Your task to perform on an android device: open wifi settings Image 0: 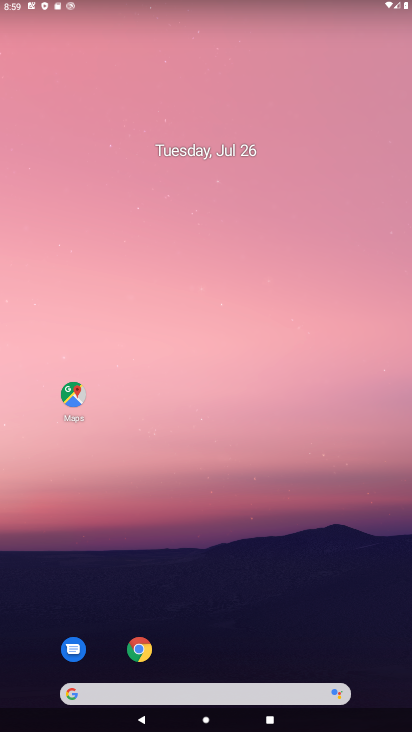
Step 0: drag from (217, 609) to (293, 373)
Your task to perform on an android device: open wifi settings Image 1: 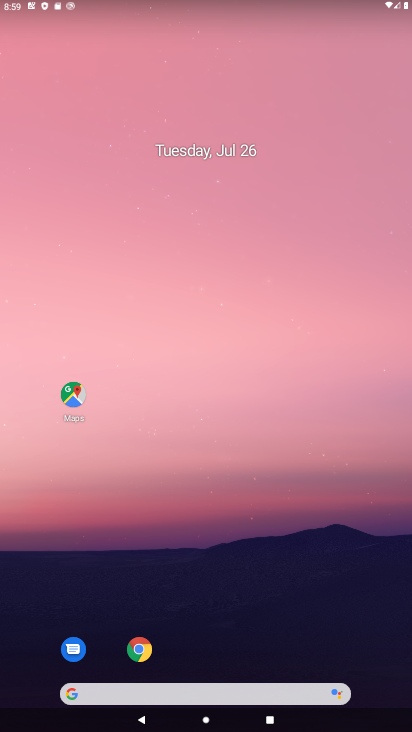
Step 1: drag from (251, 523) to (323, 29)
Your task to perform on an android device: open wifi settings Image 2: 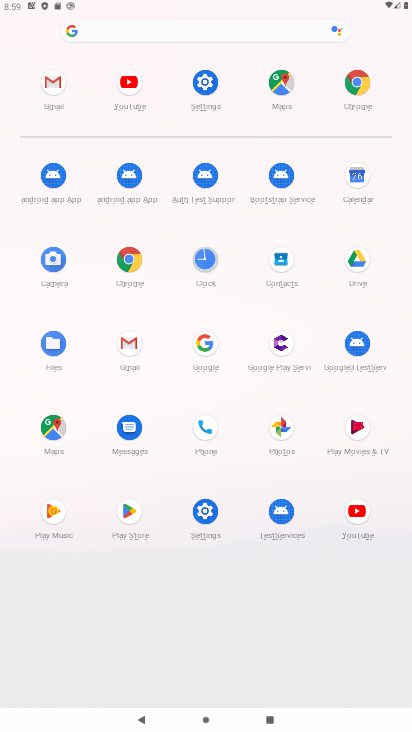
Step 2: click (203, 81)
Your task to perform on an android device: open wifi settings Image 3: 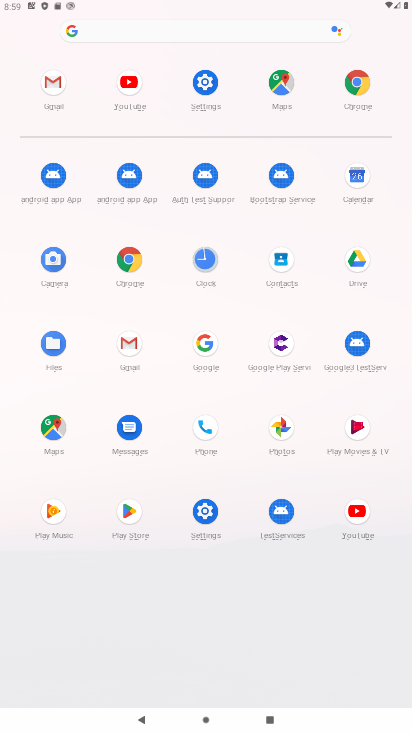
Step 3: click (203, 81)
Your task to perform on an android device: open wifi settings Image 4: 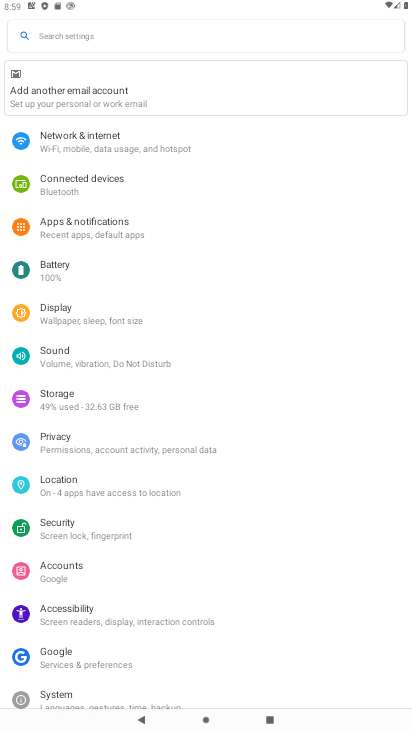
Step 4: click (88, 140)
Your task to perform on an android device: open wifi settings Image 5: 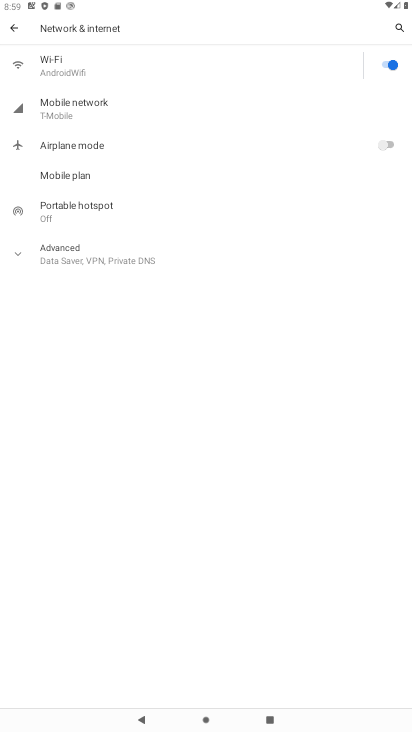
Step 5: click (132, 74)
Your task to perform on an android device: open wifi settings Image 6: 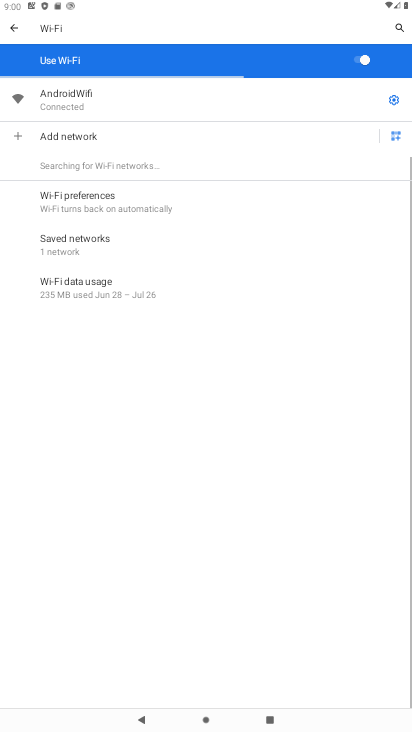
Step 6: click (390, 98)
Your task to perform on an android device: open wifi settings Image 7: 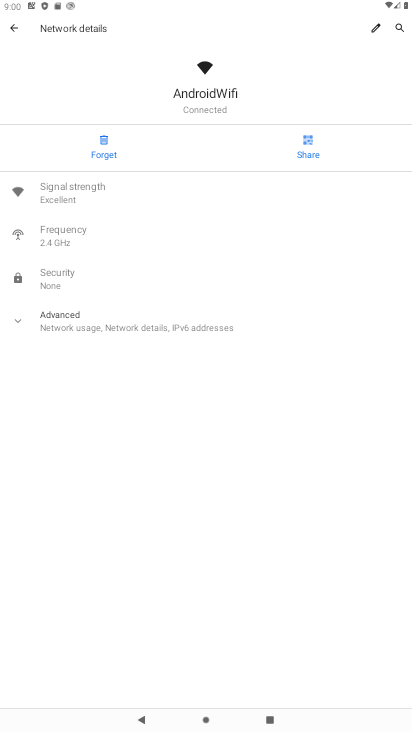
Step 7: task complete